Your task to perform on an android device: Search for sushi restaurants on Maps Image 0: 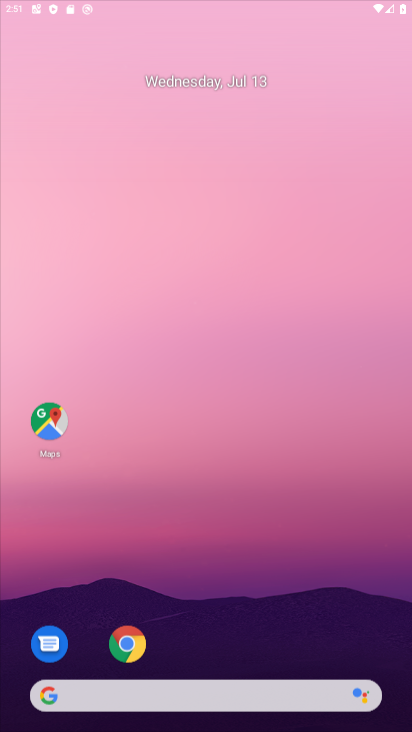
Step 0: drag from (289, 638) to (192, 1)
Your task to perform on an android device: Search for sushi restaurants on Maps Image 1: 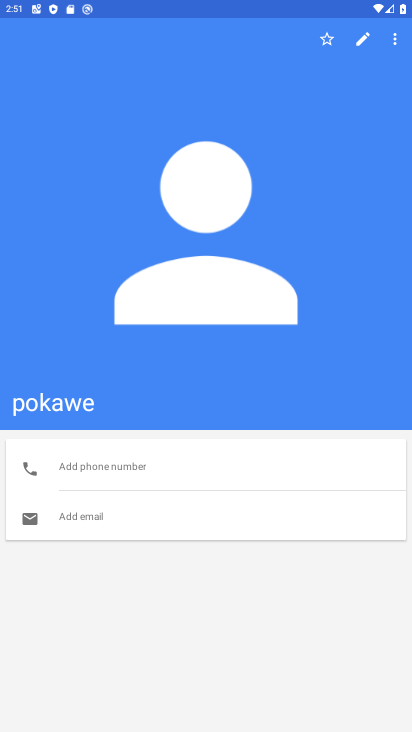
Step 1: press home button
Your task to perform on an android device: Search for sushi restaurants on Maps Image 2: 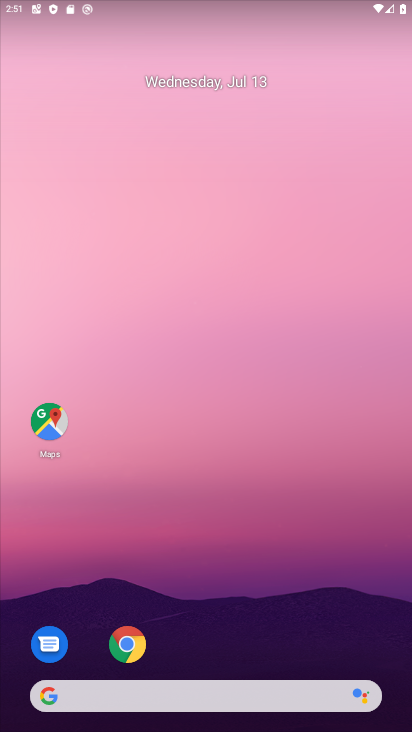
Step 2: drag from (294, 618) to (300, 124)
Your task to perform on an android device: Search for sushi restaurants on Maps Image 3: 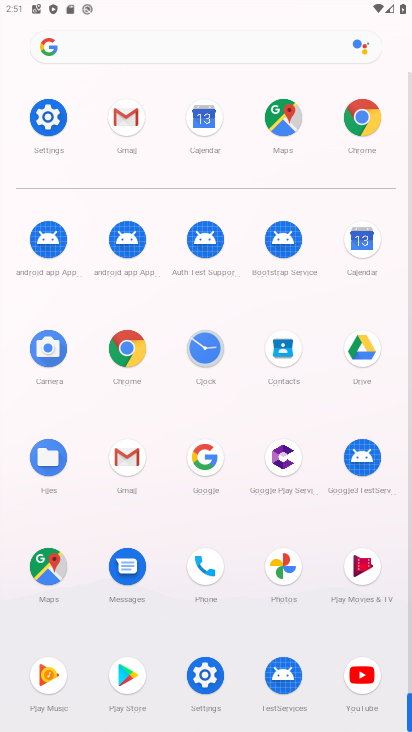
Step 3: click (289, 122)
Your task to perform on an android device: Search for sushi restaurants on Maps Image 4: 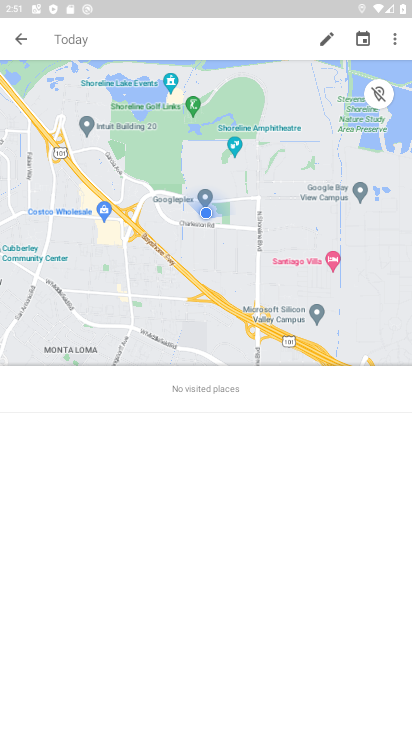
Step 4: click (28, 45)
Your task to perform on an android device: Search for sushi restaurants on Maps Image 5: 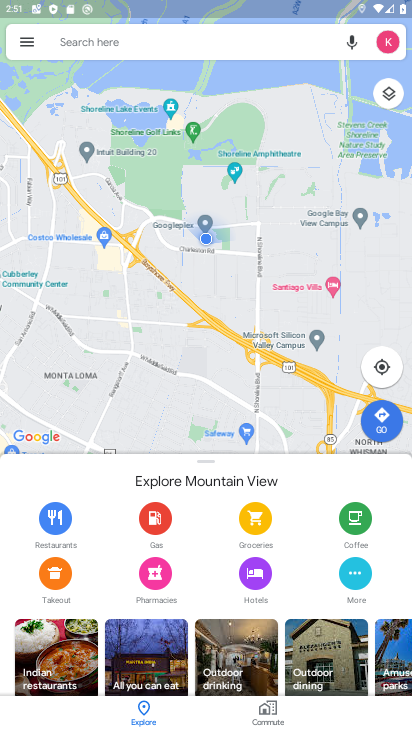
Step 5: click (63, 33)
Your task to perform on an android device: Search for sushi restaurants on Maps Image 6: 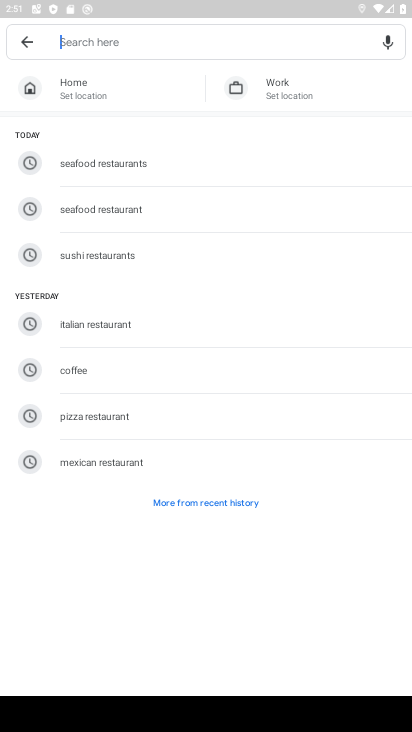
Step 6: click (125, 162)
Your task to perform on an android device: Search for sushi restaurants on Maps Image 7: 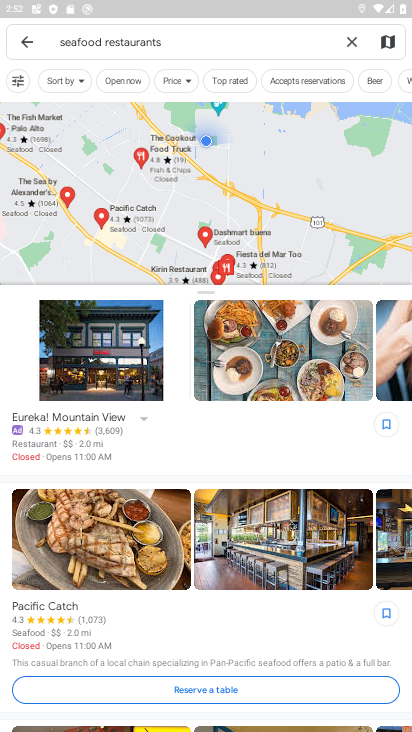
Step 7: task complete